Your task to perform on an android device: Go to eBay Image 0: 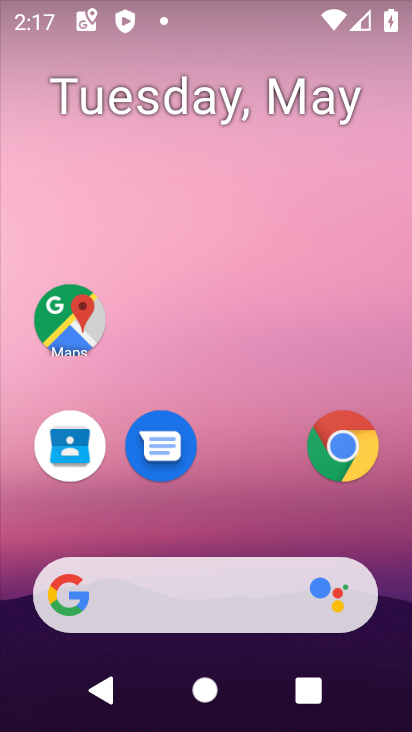
Step 0: drag from (193, 422) to (181, 8)
Your task to perform on an android device: Go to eBay Image 1: 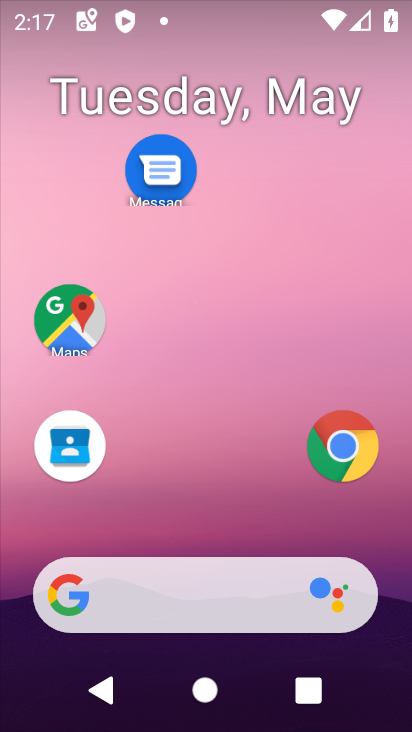
Step 1: drag from (210, 519) to (214, 54)
Your task to perform on an android device: Go to eBay Image 2: 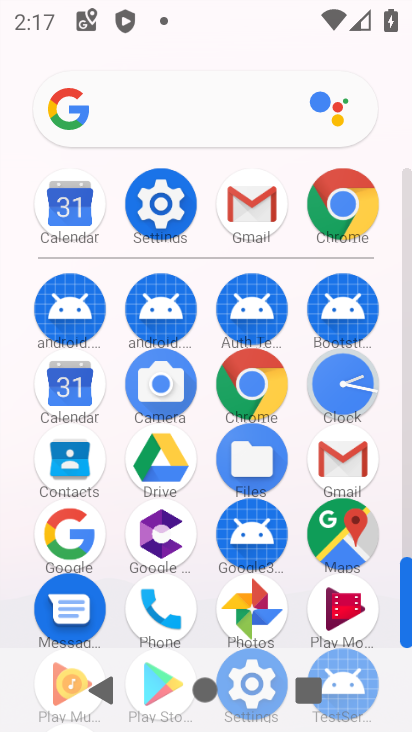
Step 2: click (235, 378)
Your task to perform on an android device: Go to eBay Image 3: 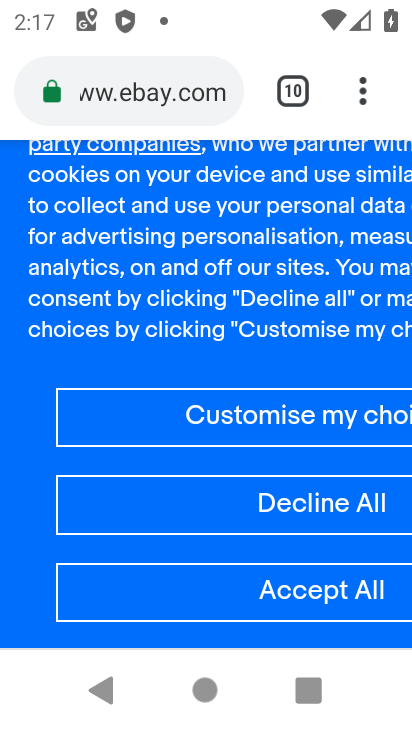
Step 3: drag from (295, 489) to (257, 196)
Your task to perform on an android device: Go to eBay Image 4: 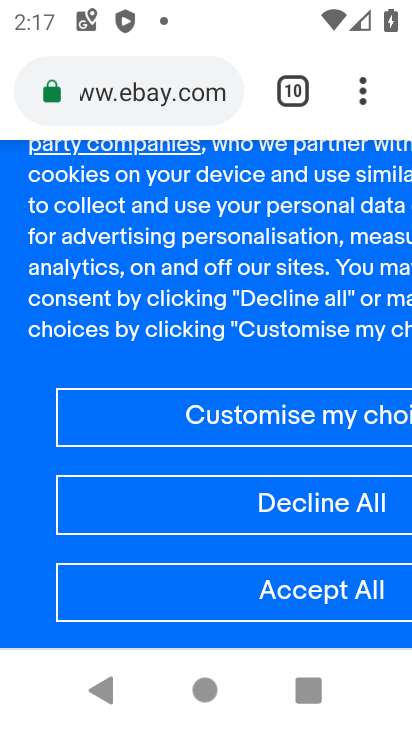
Step 4: click (330, 620)
Your task to perform on an android device: Go to eBay Image 5: 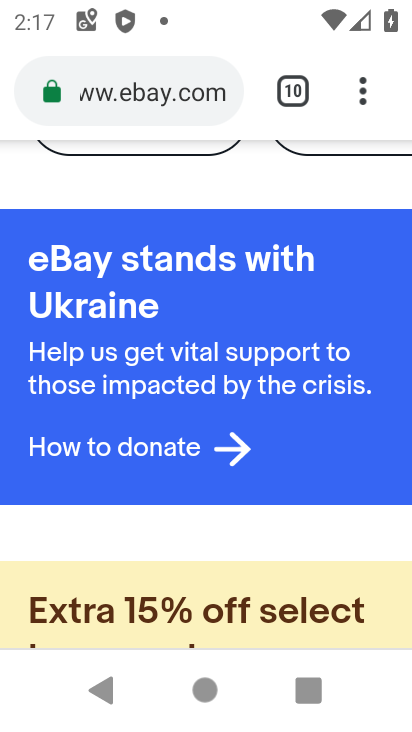
Step 5: task complete